Your task to perform on an android device: turn on showing notifications on the lock screen Image 0: 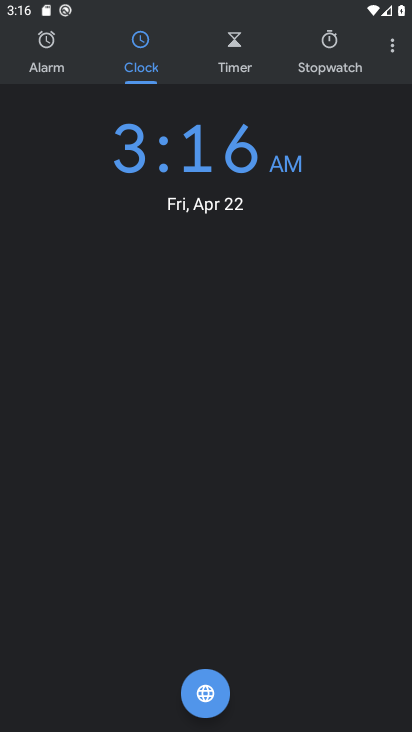
Step 0: press home button
Your task to perform on an android device: turn on showing notifications on the lock screen Image 1: 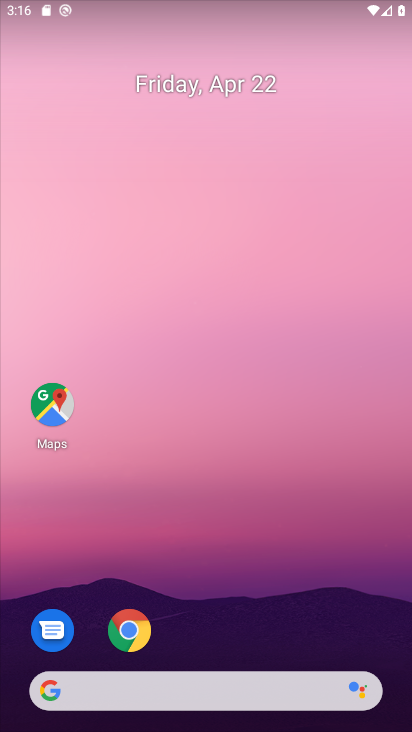
Step 1: drag from (269, 644) to (212, 70)
Your task to perform on an android device: turn on showing notifications on the lock screen Image 2: 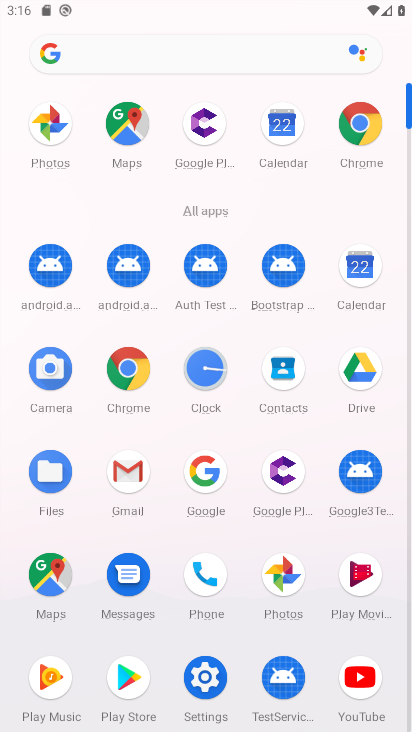
Step 2: click (204, 673)
Your task to perform on an android device: turn on showing notifications on the lock screen Image 3: 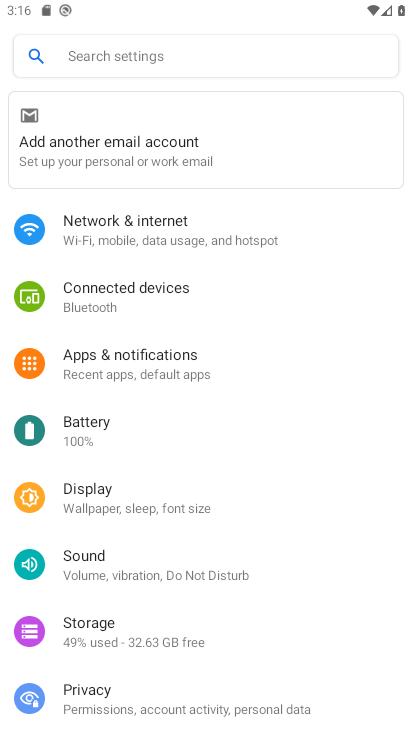
Step 3: click (210, 372)
Your task to perform on an android device: turn on showing notifications on the lock screen Image 4: 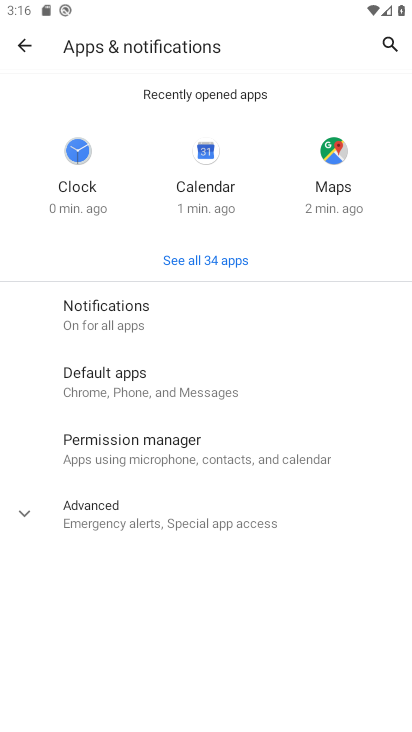
Step 4: click (203, 309)
Your task to perform on an android device: turn on showing notifications on the lock screen Image 5: 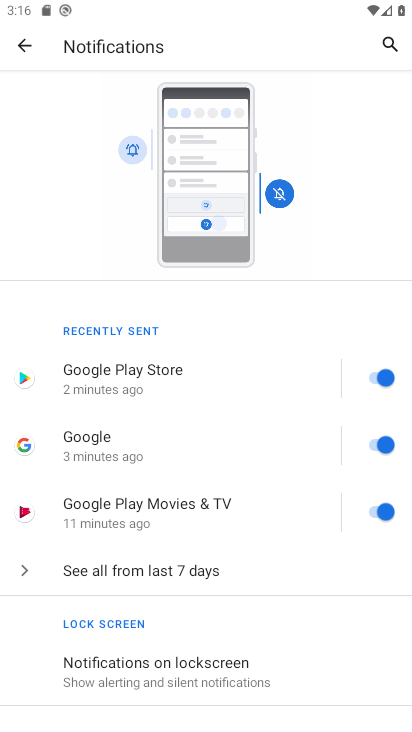
Step 5: drag from (279, 588) to (350, 56)
Your task to perform on an android device: turn on showing notifications on the lock screen Image 6: 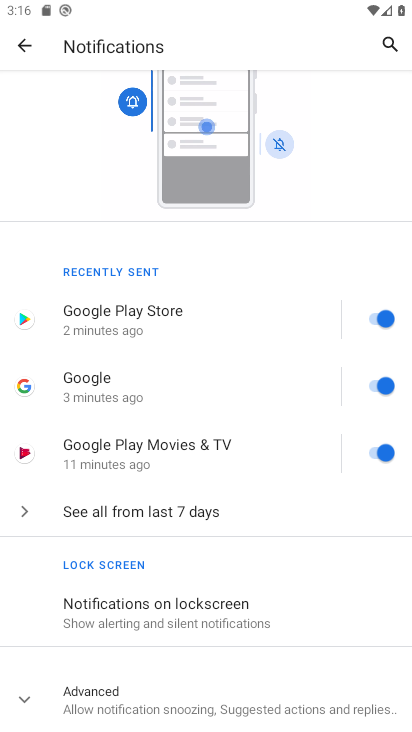
Step 6: click (255, 601)
Your task to perform on an android device: turn on showing notifications on the lock screen Image 7: 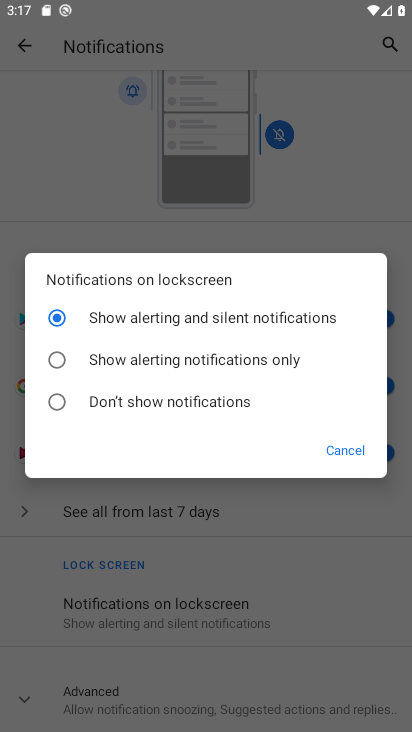
Step 7: task complete